Your task to perform on an android device: Go to battery settings Image 0: 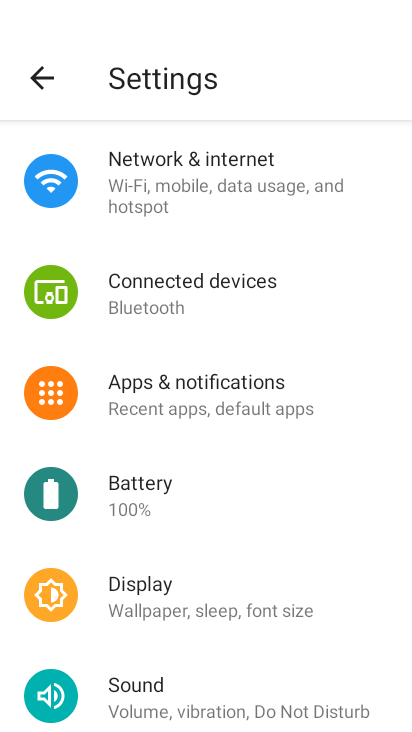
Step 0: drag from (269, 538) to (264, 348)
Your task to perform on an android device: Go to battery settings Image 1: 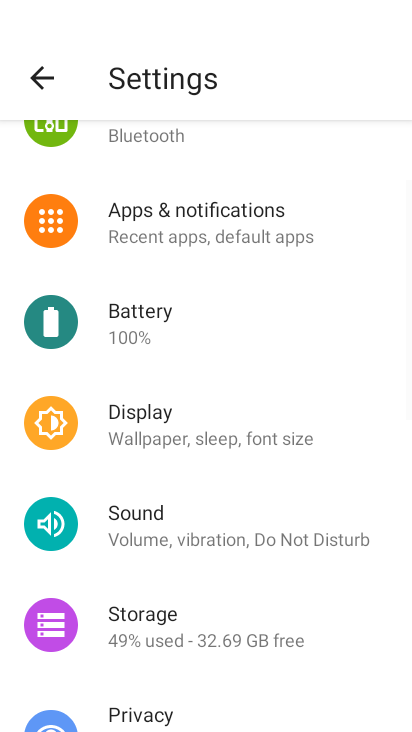
Step 1: click (126, 325)
Your task to perform on an android device: Go to battery settings Image 2: 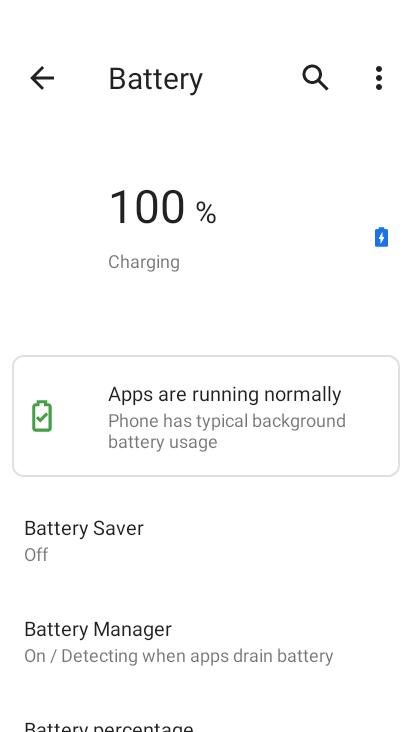
Step 2: task complete